Your task to perform on an android device: turn off javascript in the chrome app Image 0: 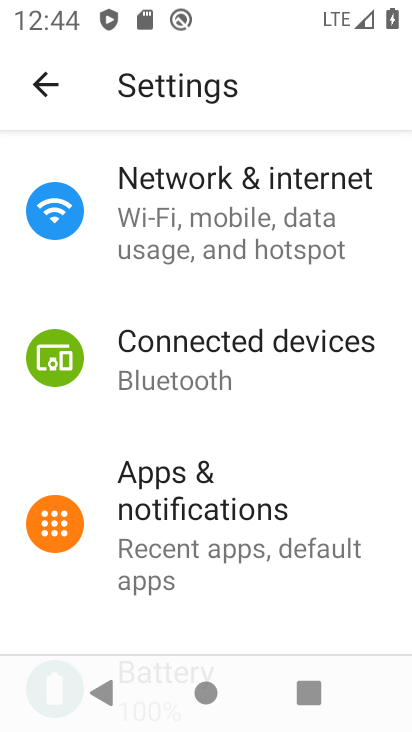
Step 0: press home button
Your task to perform on an android device: turn off javascript in the chrome app Image 1: 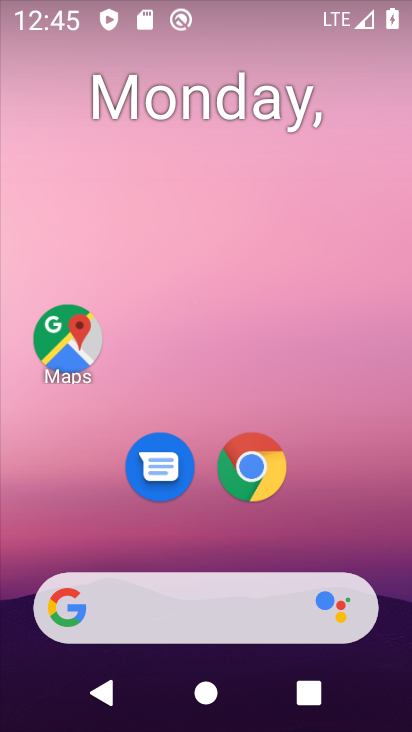
Step 1: click (245, 459)
Your task to perform on an android device: turn off javascript in the chrome app Image 2: 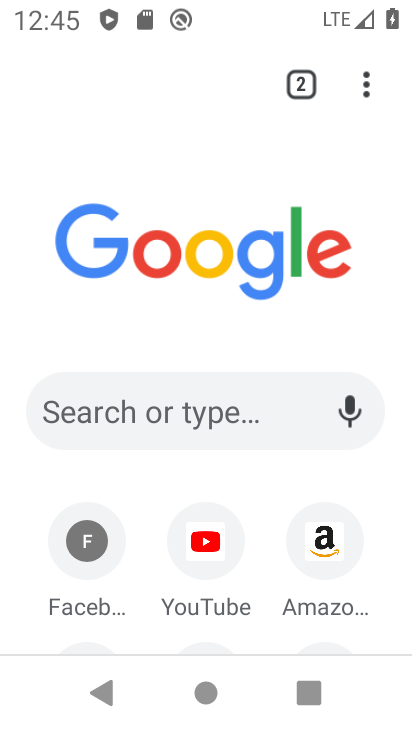
Step 2: click (365, 93)
Your task to perform on an android device: turn off javascript in the chrome app Image 3: 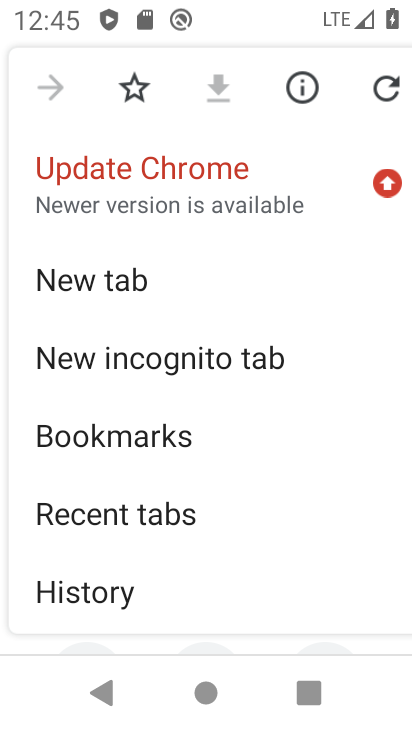
Step 3: drag from (275, 595) to (319, 180)
Your task to perform on an android device: turn off javascript in the chrome app Image 4: 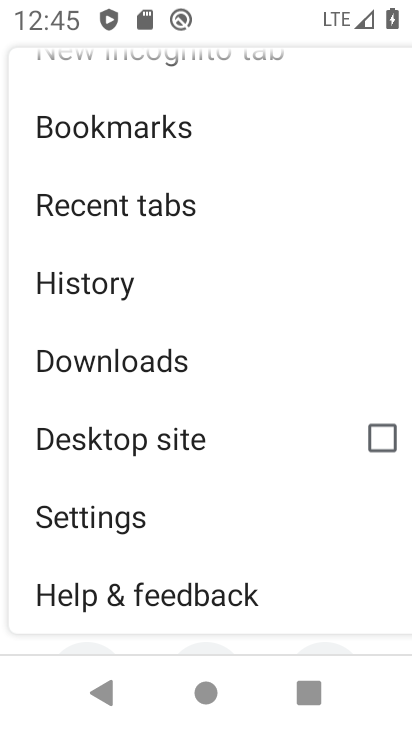
Step 4: click (71, 510)
Your task to perform on an android device: turn off javascript in the chrome app Image 5: 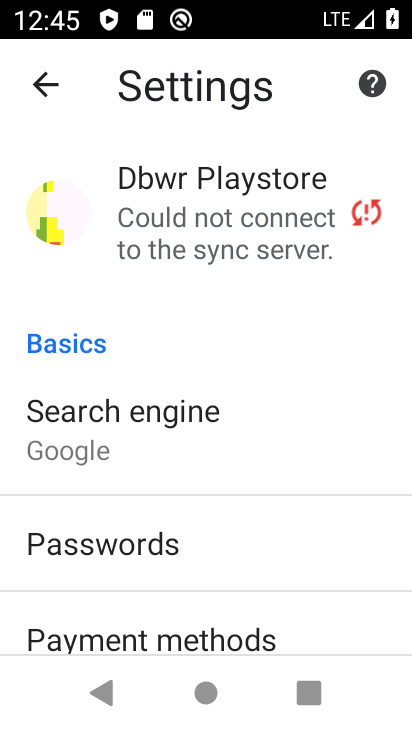
Step 5: drag from (295, 581) to (284, 157)
Your task to perform on an android device: turn off javascript in the chrome app Image 6: 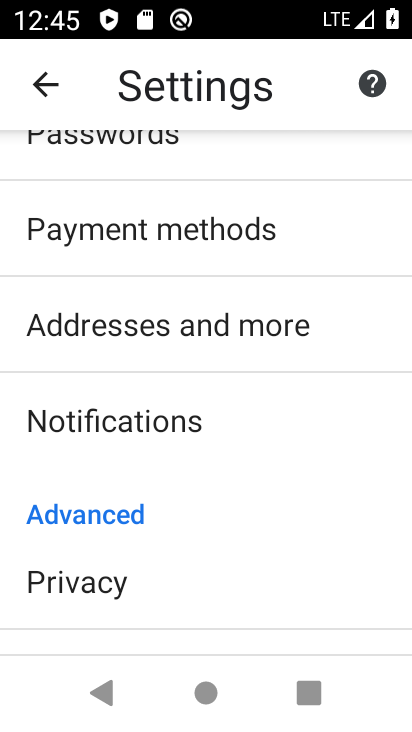
Step 6: drag from (279, 489) to (333, 173)
Your task to perform on an android device: turn off javascript in the chrome app Image 7: 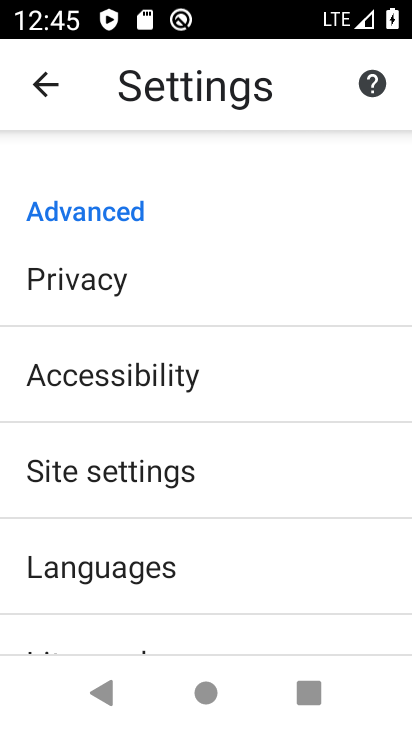
Step 7: click (121, 475)
Your task to perform on an android device: turn off javascript in the chrome app Image 8: 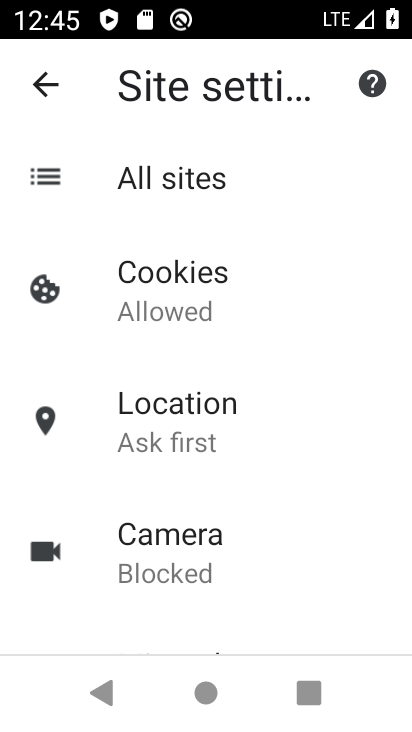
Step 8: drag from (272, 553) to (284, 168)
Your task to perform on an android device: turn off javascript in the chrome app Image 9: 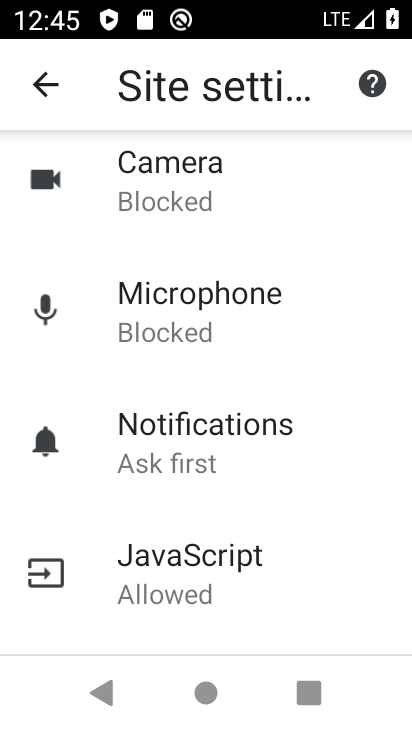
Step 9: click (188, 552)
Your task to perform on an android device: turn off javascript in the chrome app Image 10: 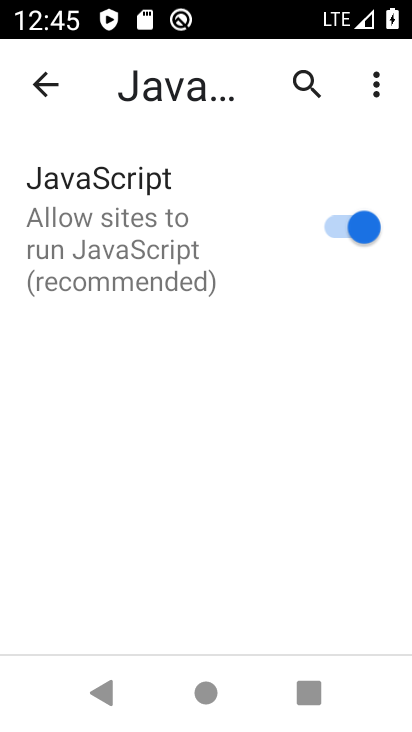
Step 10: click (334, 227)
Your task to perform on an android device: turn off javascript in the chrome app Image 11: 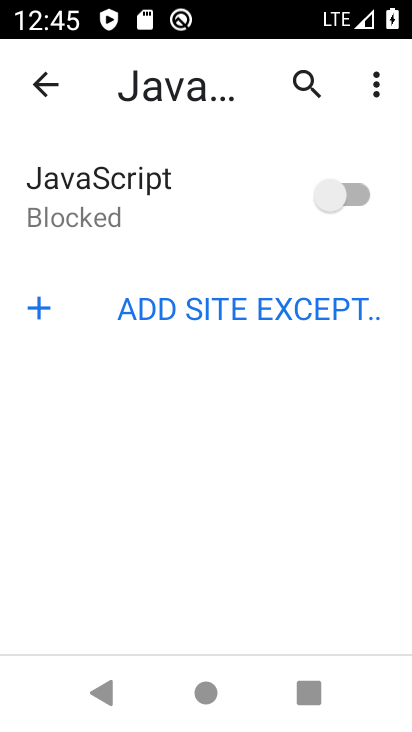
Step 11: task complete